Your task to perform on an android device: clear history in the chrome app Image 0: 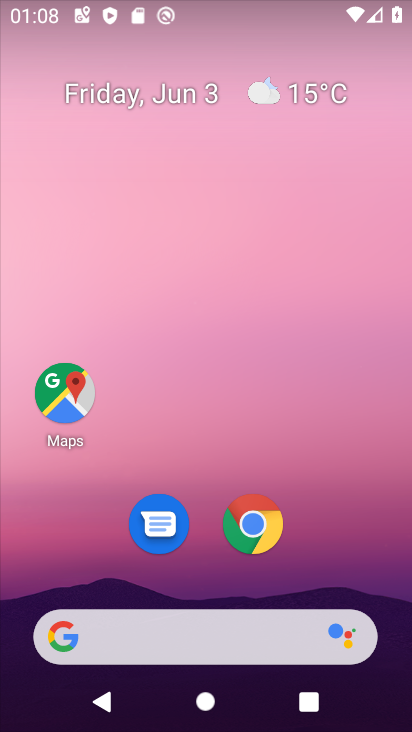
Step 0: click (262, 523)
Your task to perform on an android device: clear history in the chrome app Image 1: 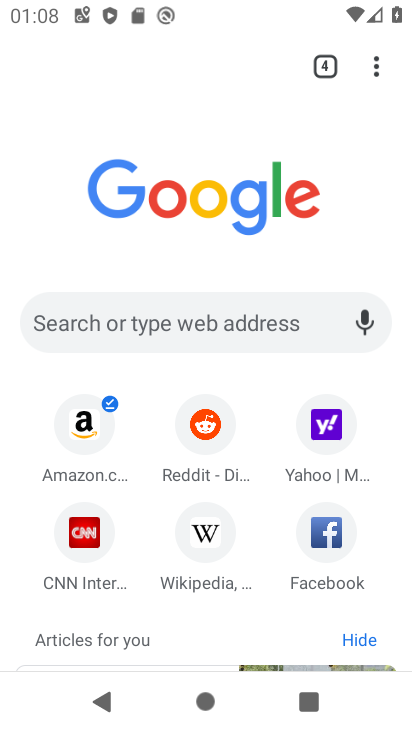
Step 1: click (372, 70)
Your task to perform on an android device: clear history in the chrome app Image 2: 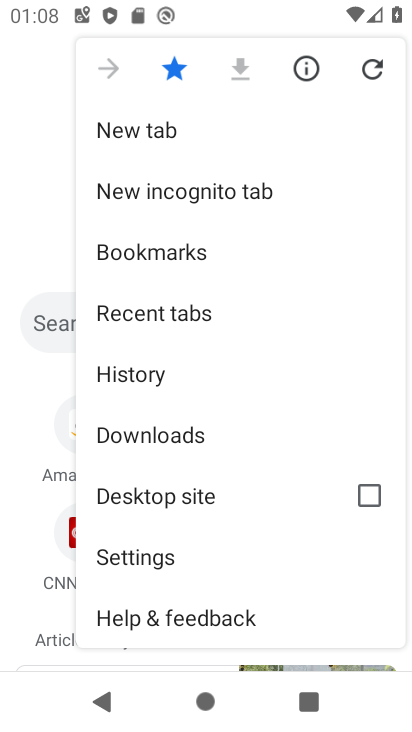
Step 2: click (193, 374)
Your task to perform on an android device: clear history in the chrome app Image 3: 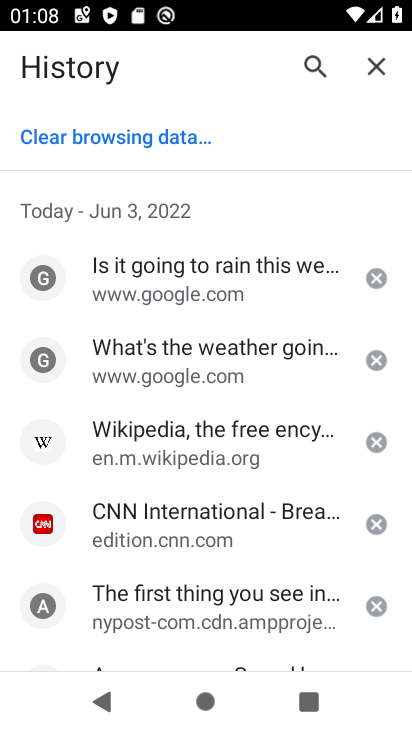
Step 3: click (144, 134)
Your task to perform on an android device: clear history in the chrome app Image 4: 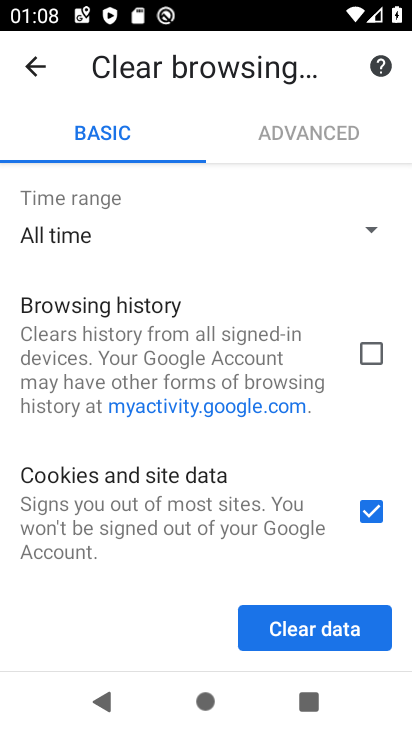
Step 4: click (374, 350)
Your task to perform on an android device: clear history in the chrome app Image 5: 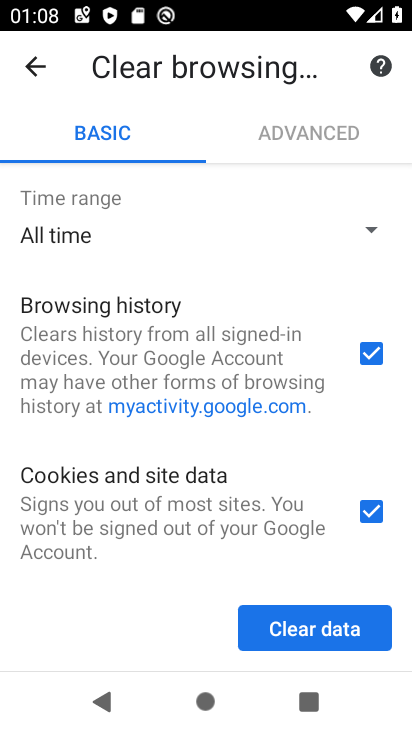
Step 5: click (371, 509)
Your task to perform on an android device: clear history in the chrome app Image 6: 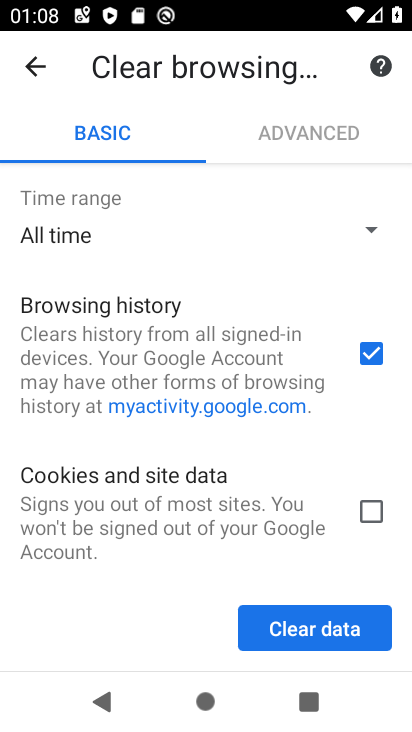
Step 6: drag from (312, 448) to (293, 201)
Your task to perform on an android device: clear history in the chrome app Image 7: 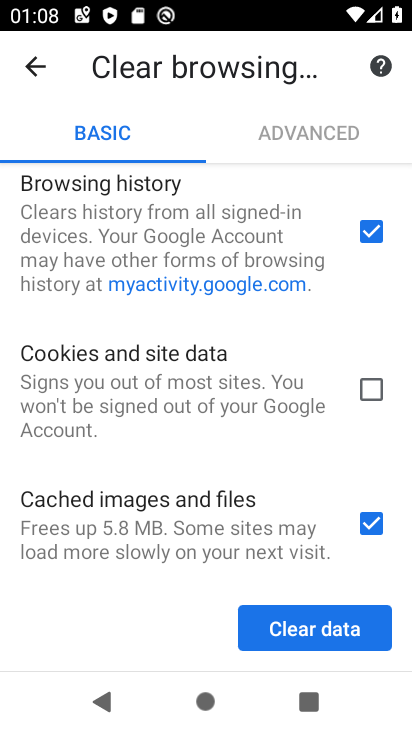
Step 7: click (373, 527)
Your task to perform on an android device: clear history in the chrome app Image 8: 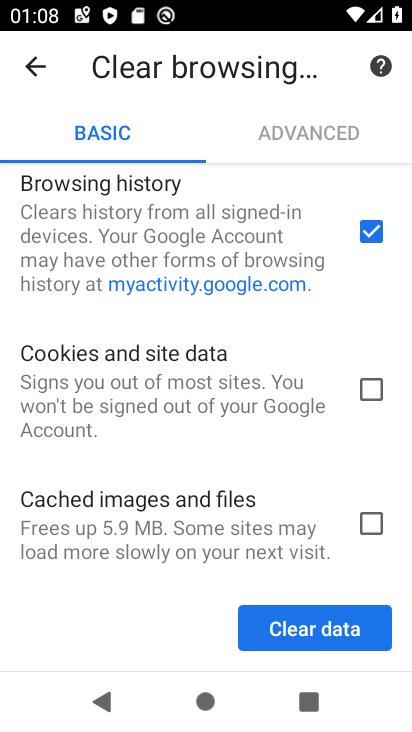
Step 8: click (356, 622)
Your task to perform on an android device: clear history in the chrome app Image 9: 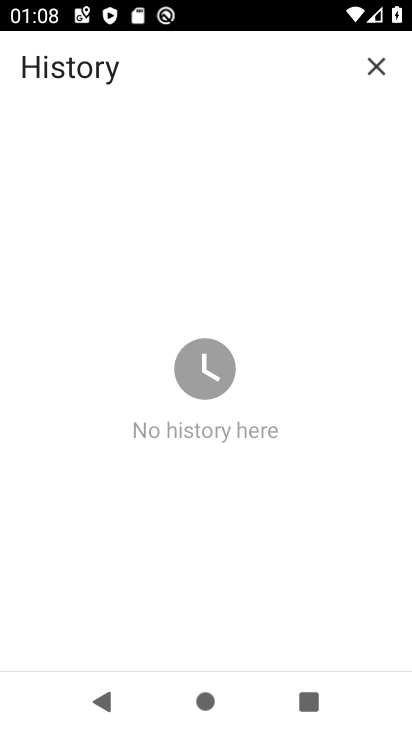
Step 9: task complete